Your task to perform on an android device: toggle translation in the chrome app Image 0: 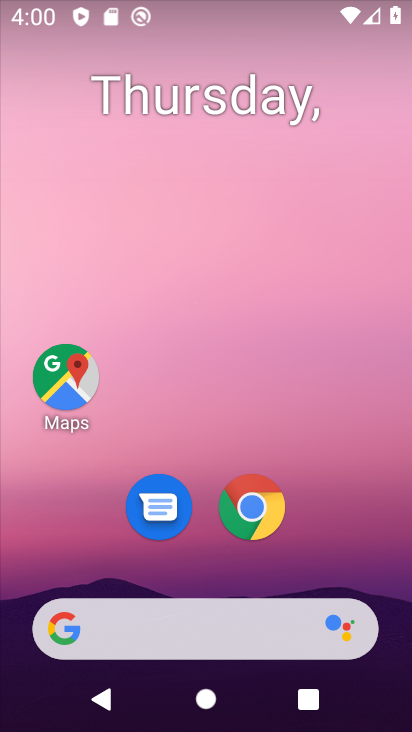
Step 0: click (254, 509)
Your task to perform on an android device: toggle translation in the chrome app Image 1: 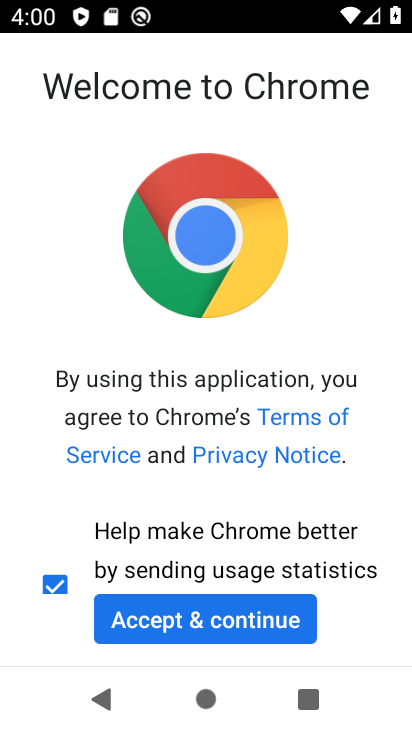
Step 1: click (238, 594)
Your task to perform on an android device: toggle translation in the chrome app Image 2: 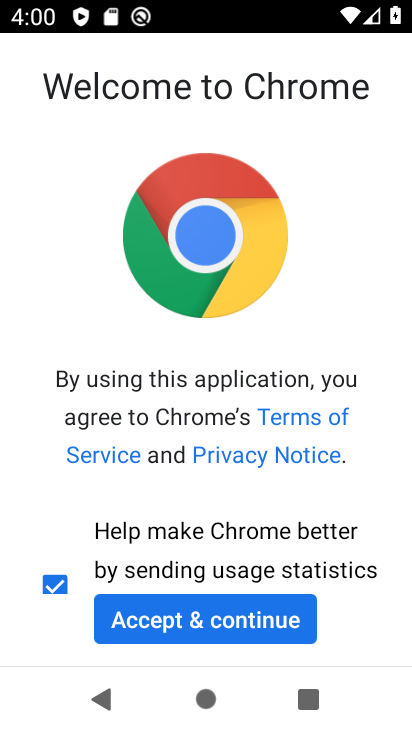
Step 2: click (245, 616)
Your task to perform on an android device: toggle translation in the chrome app Image 3: 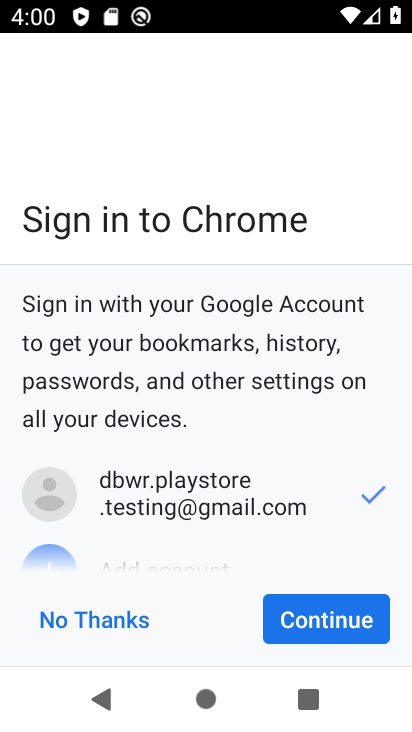
Step 3: click (353, 630)
Your task to perform on an android device: toggle translation in the chrome app Image 4: 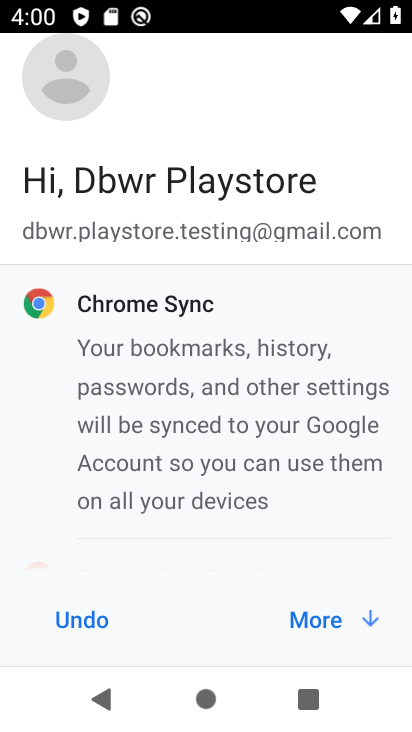
Step 4: click (356, 626)
Your task to perform on an android device: toggle translation in the chrome app Image 5: 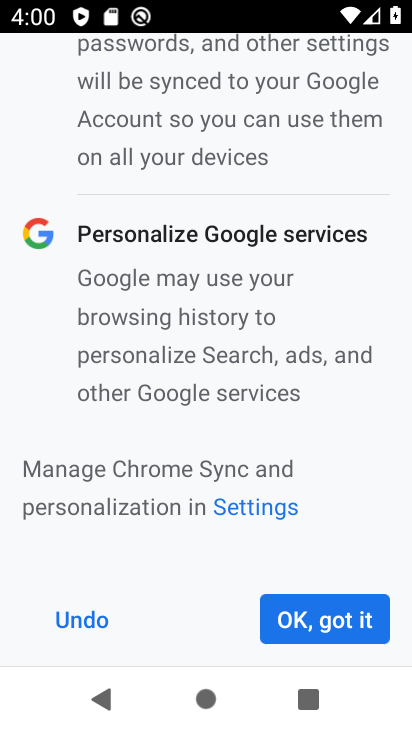
Step 5: click (356, 626)
Your task to perform on an android device: toggle translation in the chrome app Image 6: 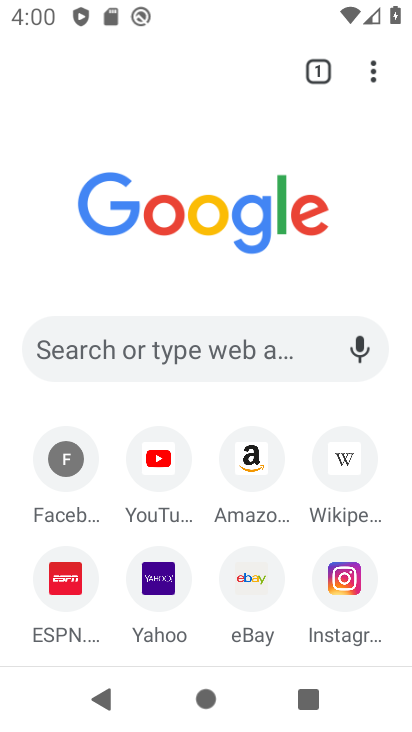
Step 6: click (380, 72)
Your task to perform on an android device: toggle translation in the chrome app Image 7: 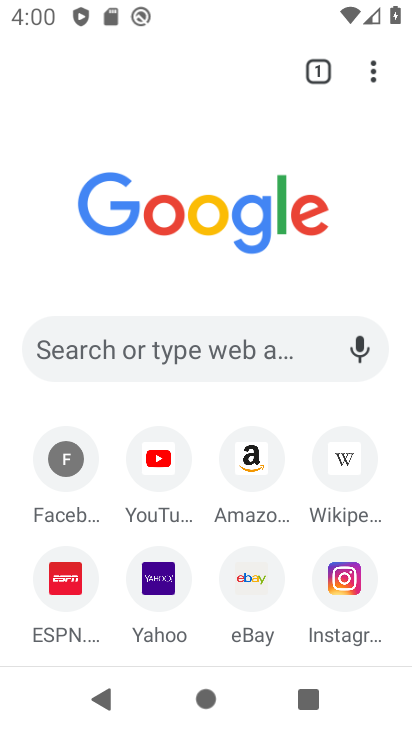
Step 7: drag from (371, 75) to (184, 509)
Your task to perform on an android device: toggle translation in the chrome app Image 8: 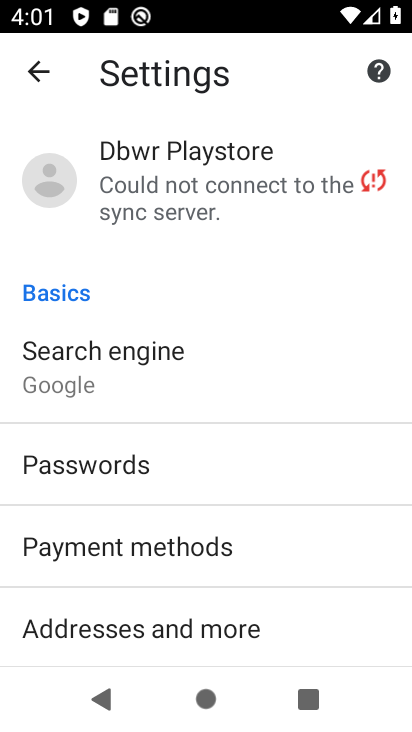
Step 8: drag from (192, 540) to (253, 10)
Your task to perform on an android device: toggle translation in the chrome app Image 9: 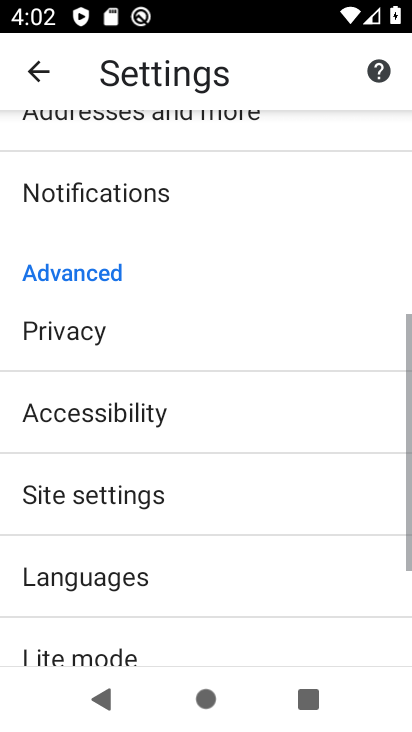
Step 9: drag from (237, 518) to (275, 121)
Your task to perform on an android device: toggle translation in the chrome app Image 10: 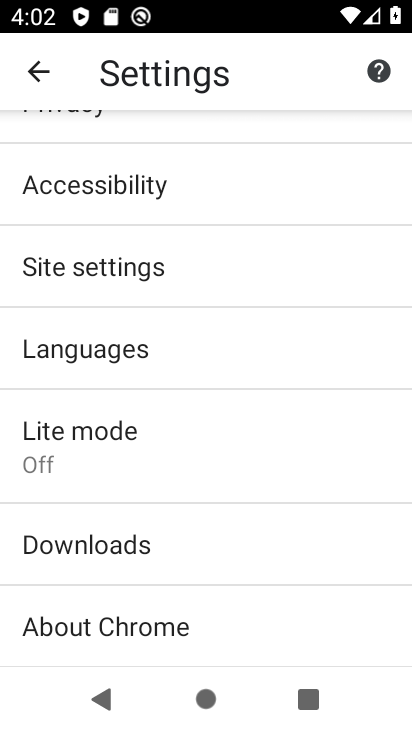
Step 10: click (133, 350)
Your task to perform on an android device: toggle translation in the chrome app Image 11: 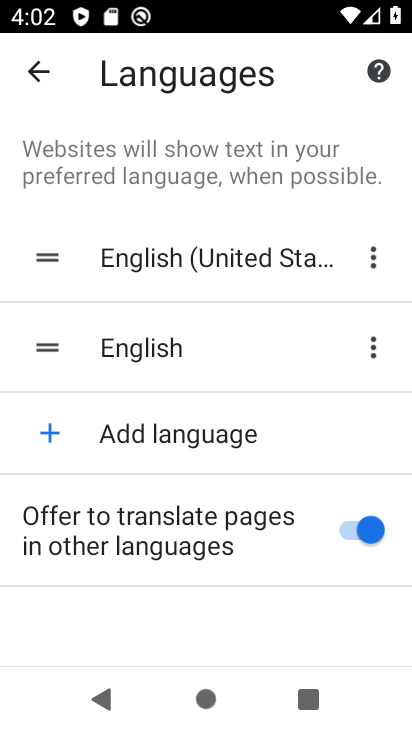
Step 11: click (359, 519)
Your task to perform on an android device: toggle translation in the chrome app Image 12: 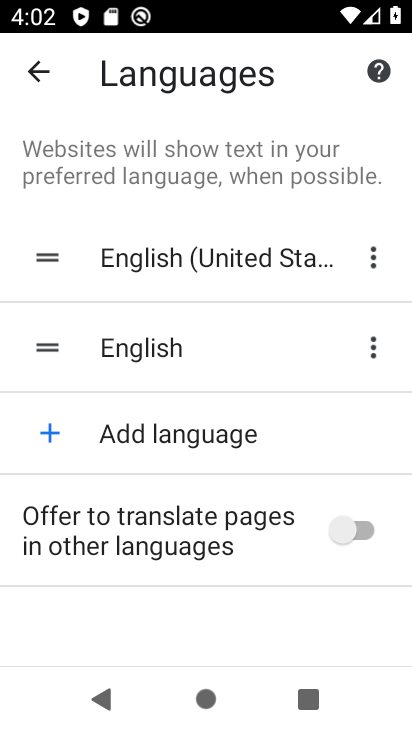
Step 12: task complete